Your task to perform on an android device: toggle location history Image 0: 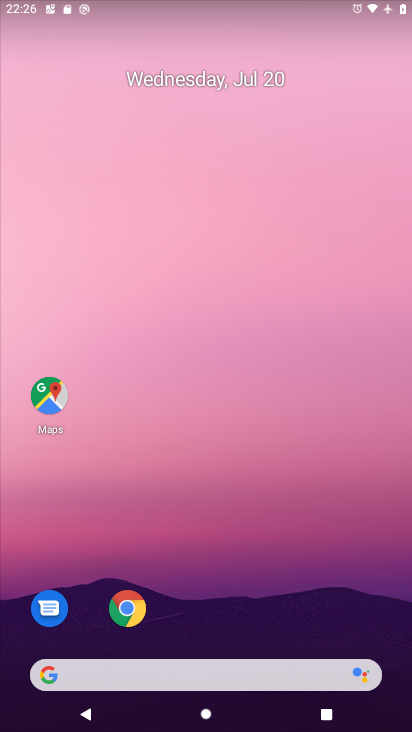
Step 0: drag from (222, 619) to (273, 106)
Your task to perform on an android device: toggle location history Image 1: 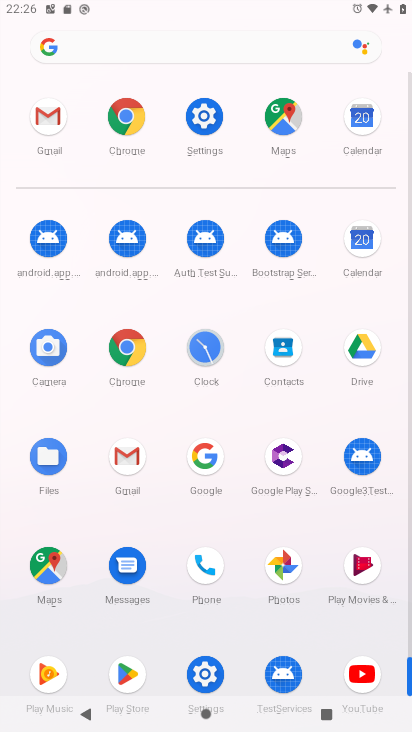
Step 1: click (207, 116)
Your task to perform on an android device: toggle location history Image 2: 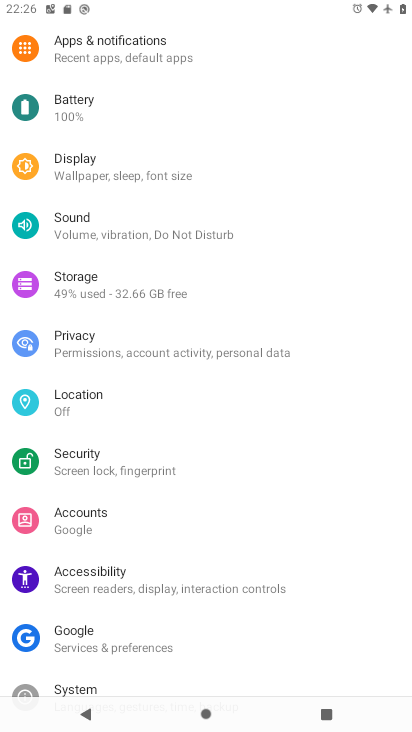
Step 2: click (113, 413)
Your task to perform on an android device: toggle location history Image 3: 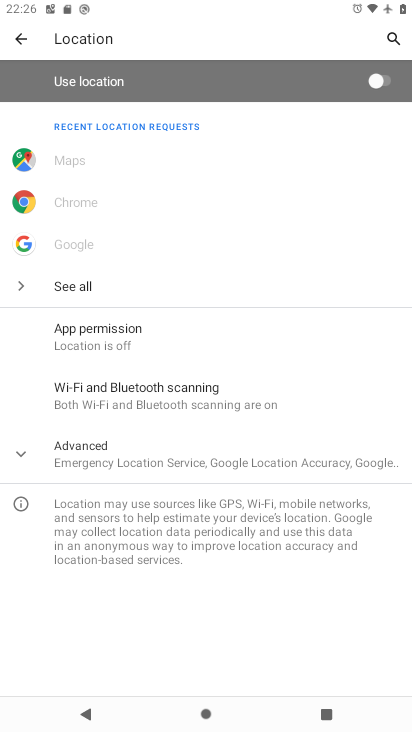
Step 3: click (157, 443)
Your task to perform on an android device: toggle location history Image 4: 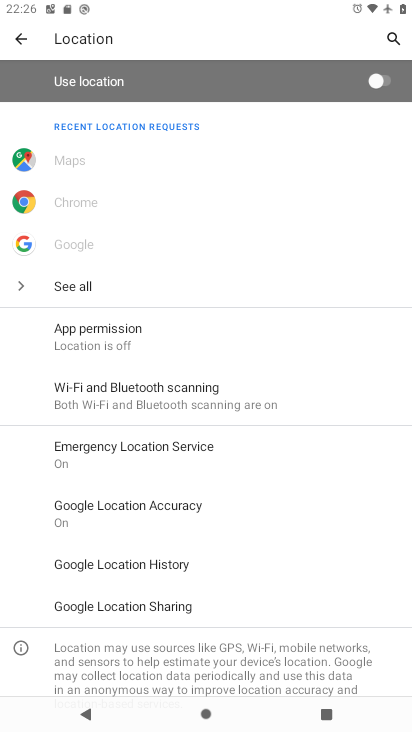
Step 4: click (162, 566)
Your task to perform on an android device: toggle location history Image 5: 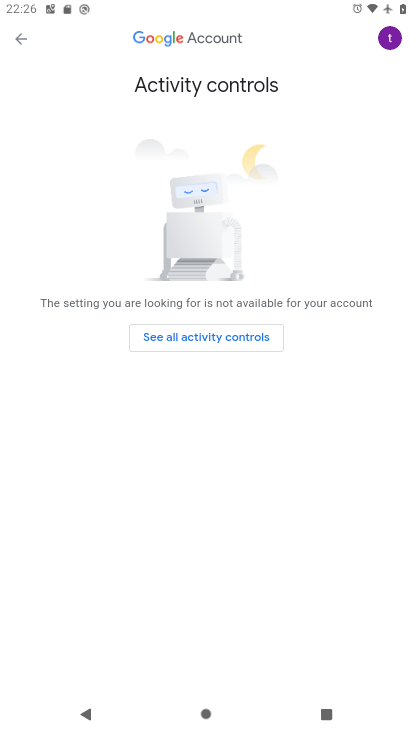
Step 5: click (200, 330)
Your task to perform on an android device: toggle location history Image 6: 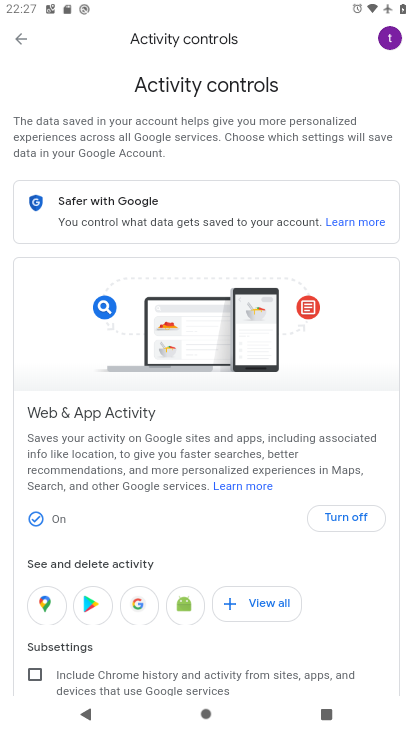
Step 6: click (333, 513)
Your task to perform on an android device: toggle location history Image 7: 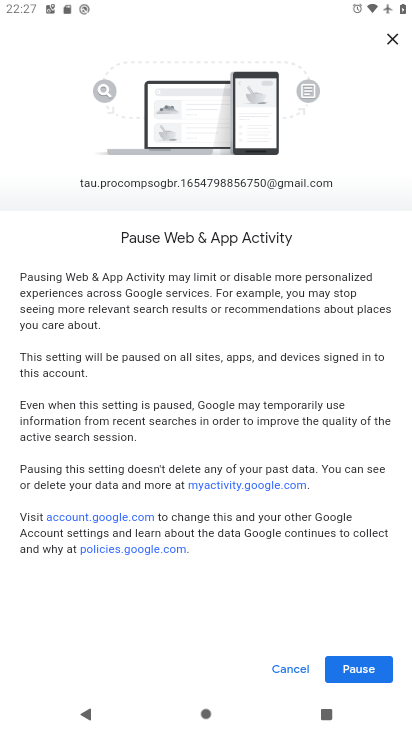
Step 7: click (291, 650)
Your task to perform on an android device: toggle location history Image 8: 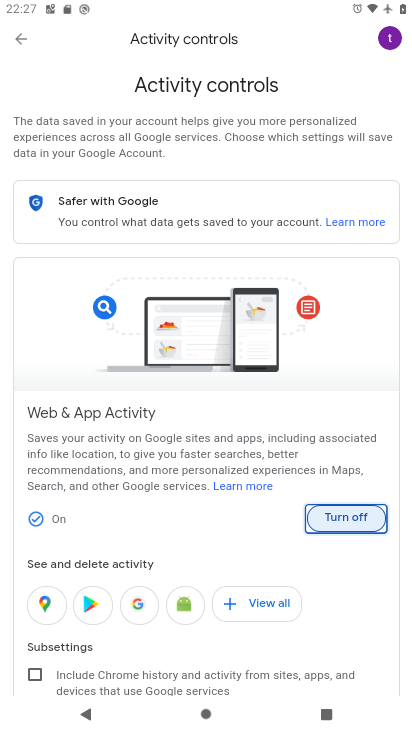
Step 8: task complete